Your task to perform on an android device: visit the assistant section in the google photos Image 0: 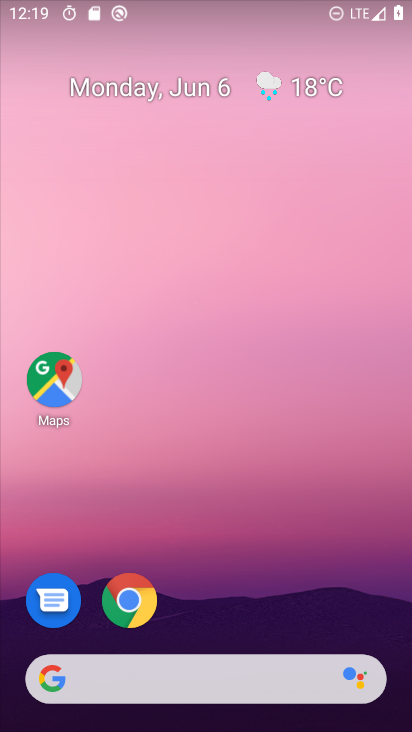
Step 0: drag from (215, 581) to (213, 299)
Your task to perform on an android device: visit the assistant section in the google photos Image 1: 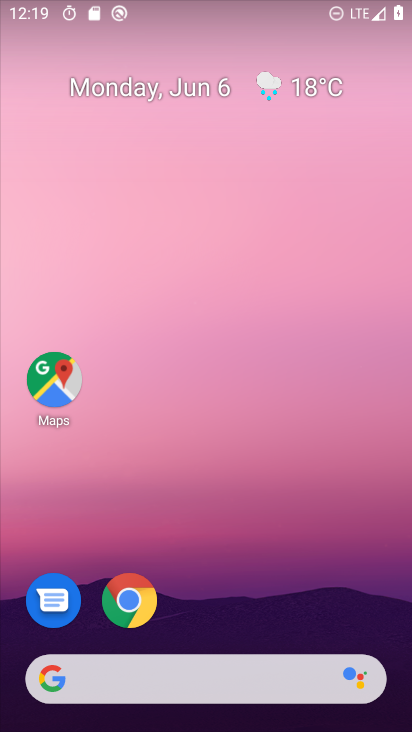
Step 1: drag from (200, 628) to (187, 148)
Your task to perform on an android device: visit the assistant section in the google photos Image 2: 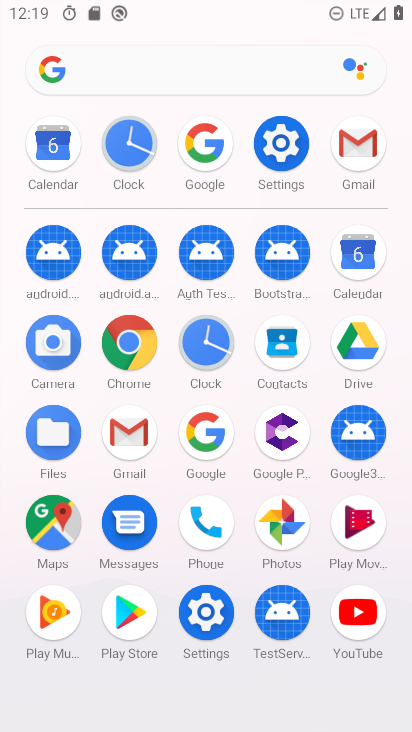
Step 2: click (261, 518)
Your task to perform on an android device: visit the assistant section in the google photos Image 3: 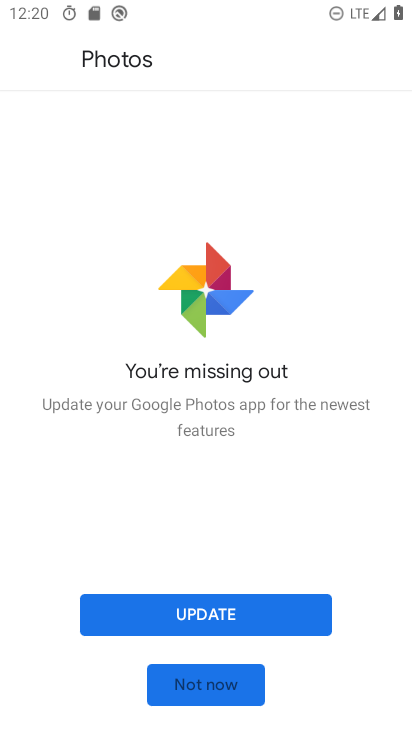
Step 3: click (231, 671)
Your task to perform on an android device: visit the assistant section in the google photos Image 4: 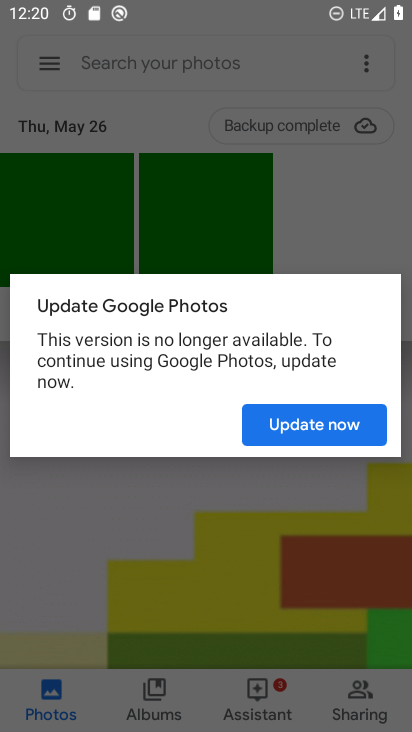
Step 4: click (272, 435)
Your task to perform on an android device: visit the assistant section in the google photos Image 5: 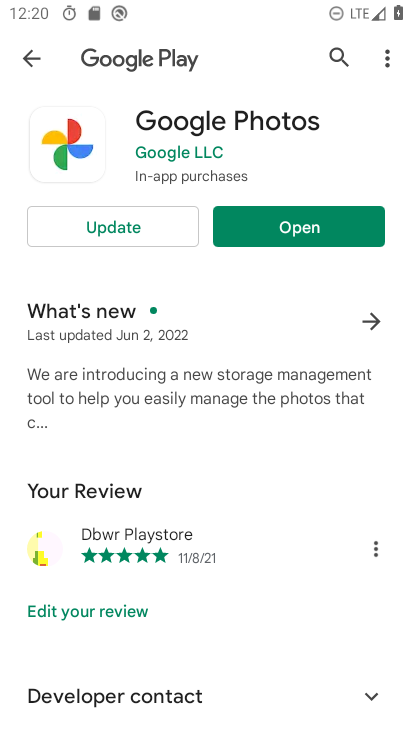
Step 5: click (278, 224)
Your task to perform on an android device: visit the assistant section in the google photos Image 6: 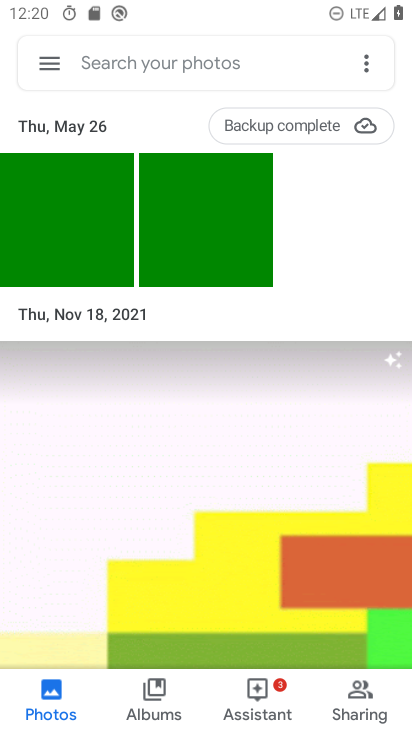
Step 6: click (267, 689)
Your task to perform on an android device: visit the assistant section in the google photos Image 7: 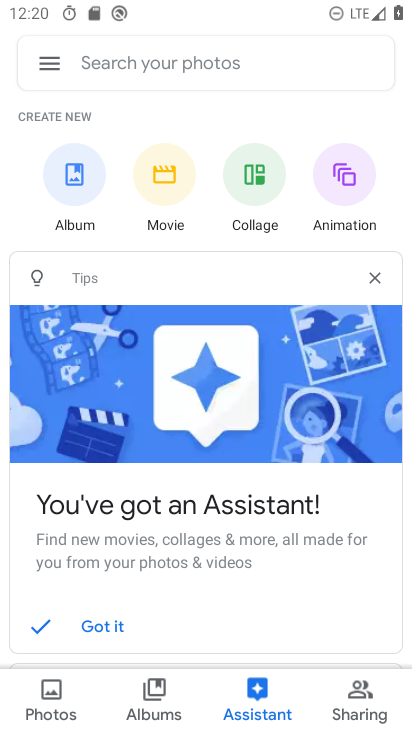
Step 7: task complete